Your task to perform on an android device: Open Maps and search for coffee Image 0: 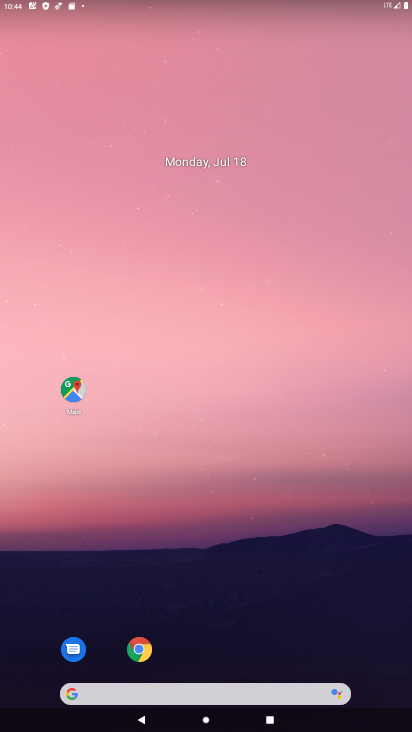
Step 0: click (70, 385)
Your task to perform on an android device: Open Maps and search for coffee Image 1: 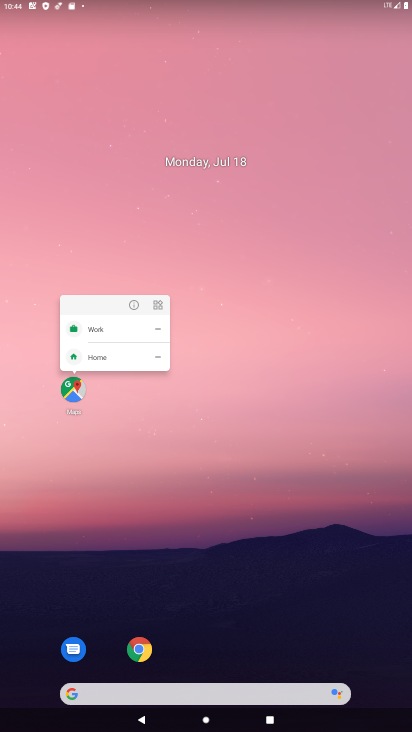
Step 1: click (160, 536)
Your task to perform on an android device: Open Maps and search for coffee Image 2: 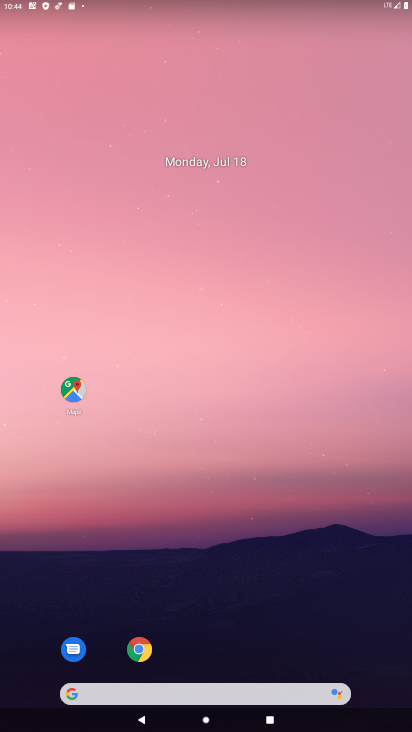
Step 2: click (80, 397)
Your task to perform on an android device: Open Maps and search for coffee Image 3: 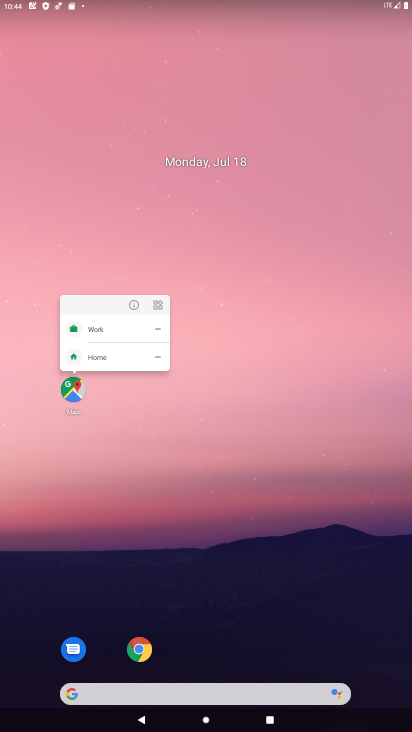
Step 3: click (80, 397)
Your task to perform on an android device: Open Maps and search for coffee Image 4: 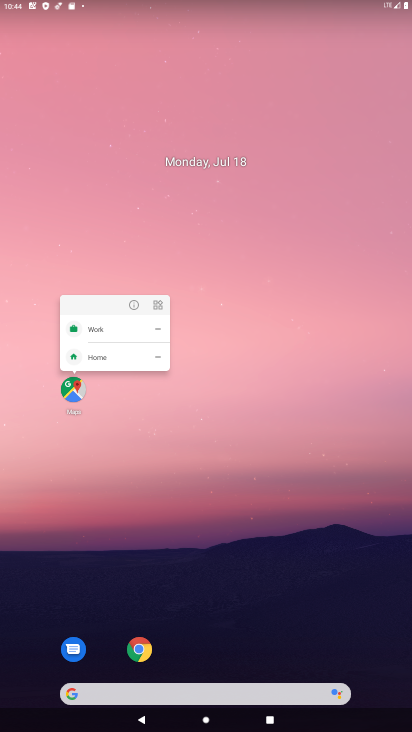
Step 4: click (80, 397)
Your task to perform on an android device: Open Maps and search for coffee Image 5: 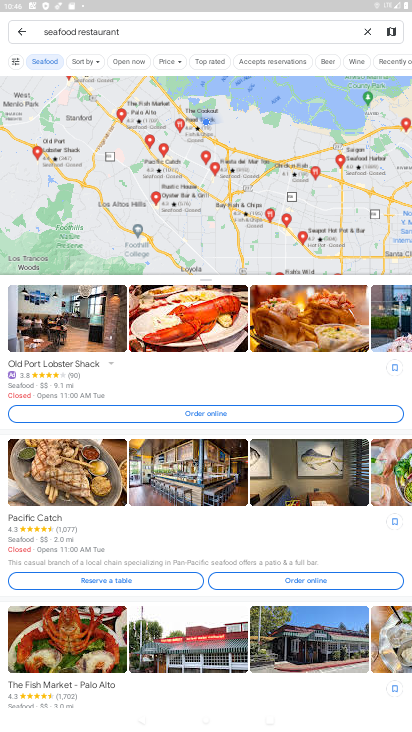
Step 5: click (370, 31)
Your task to perform on an android device: Open Maps and search for coffee Image 6: 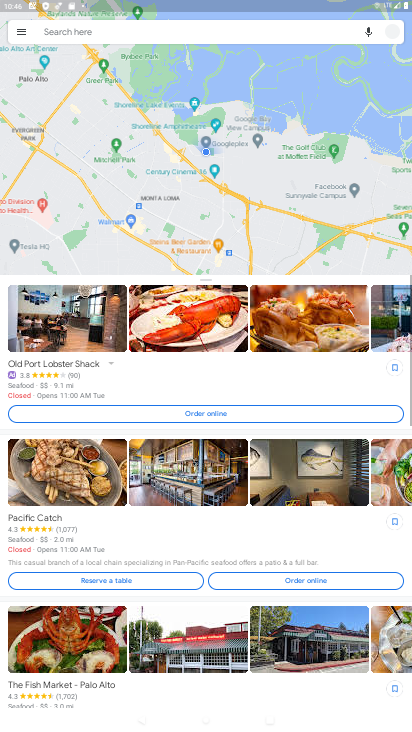
Step 6: click (262, 35)
Your task to perform on an android device: Open Maps and search for coffee Image 7: 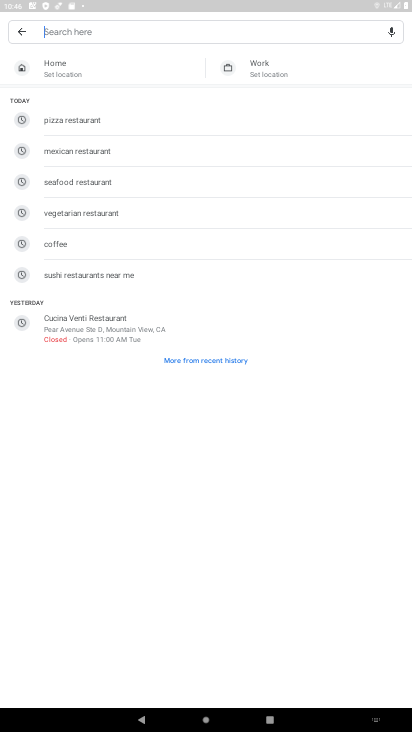
Step 7: click (148, 240)
Your task to perform on an android device: Open Maps and search for coffee Image 8: 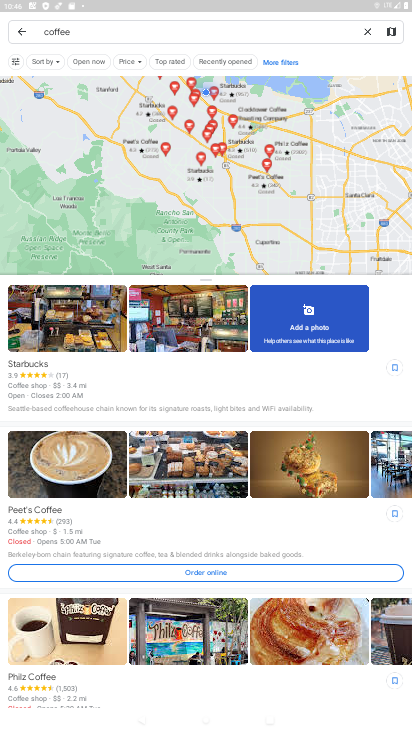
Step 8: task complete